Your task to perform on an android device: View the shopping cart on walmart.com. Image 0: 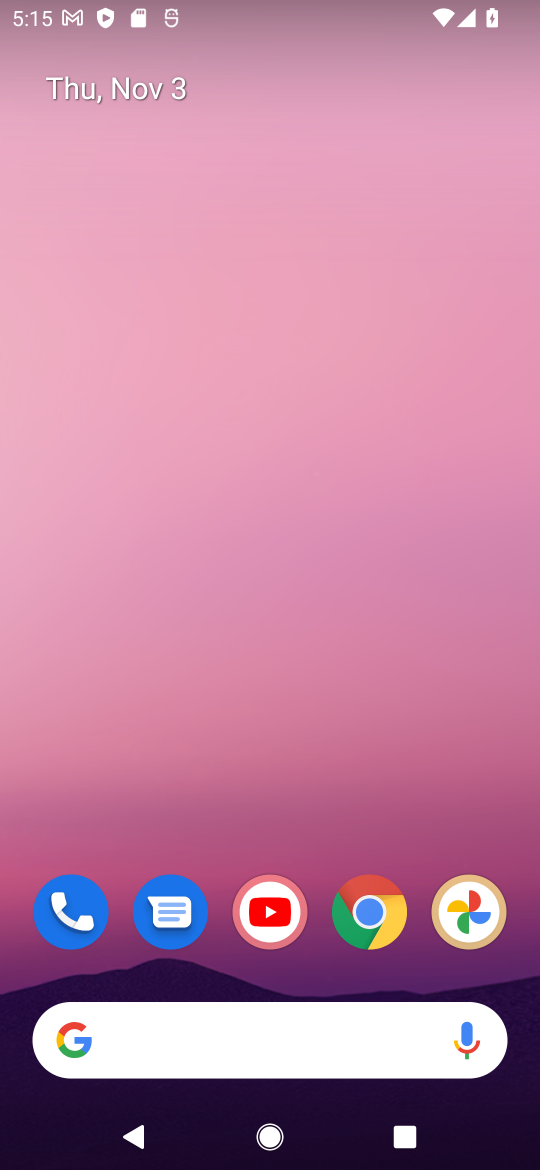
Step 0: click (370, 914)
Your task to perform on an android device: View the shopping cart on walmart.com. Image 1: 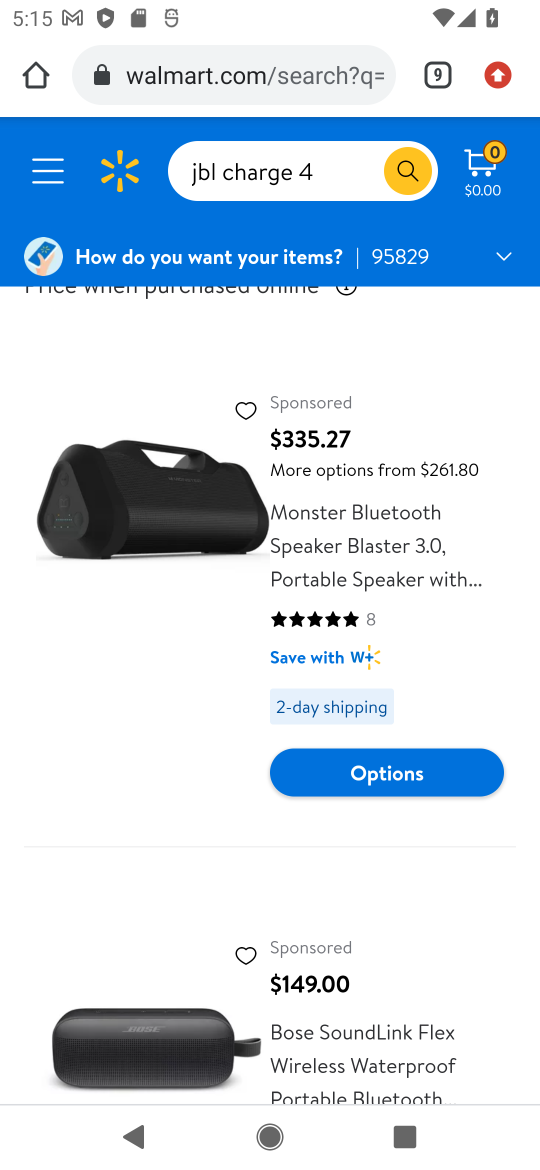
Step 1: click (484, 168)
Your task to perform on an android device: View the shopping cart on walmart.com. Image 2: 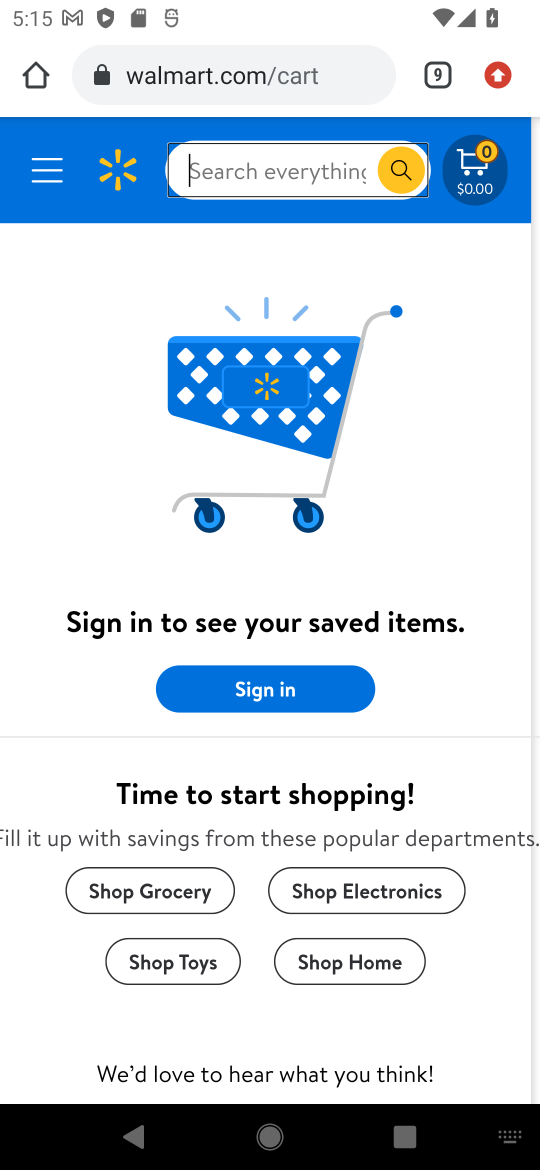
Step 2: task complete